Your task to perform on an android device: Open network settings Image 0: 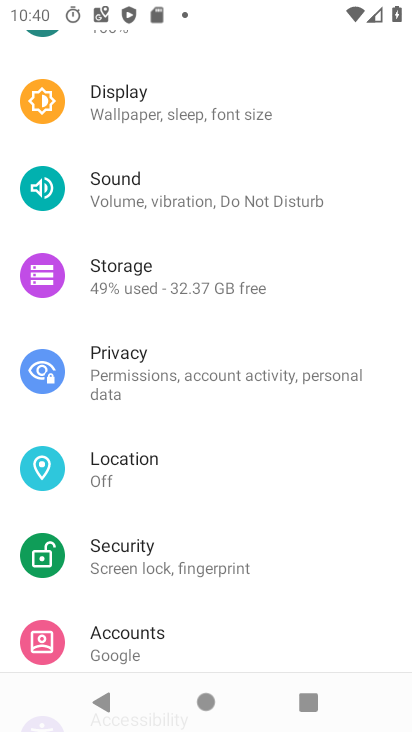
Step 0: press home button
Your task to perform on an android device: Open network settings Image 1: 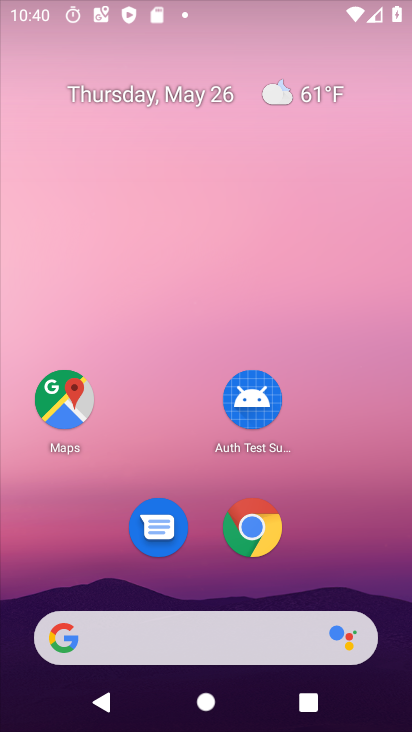
Step 1: drag from (311, 517) to (317, 59)
Your task to perform on an android device: Open network settings Image 2: 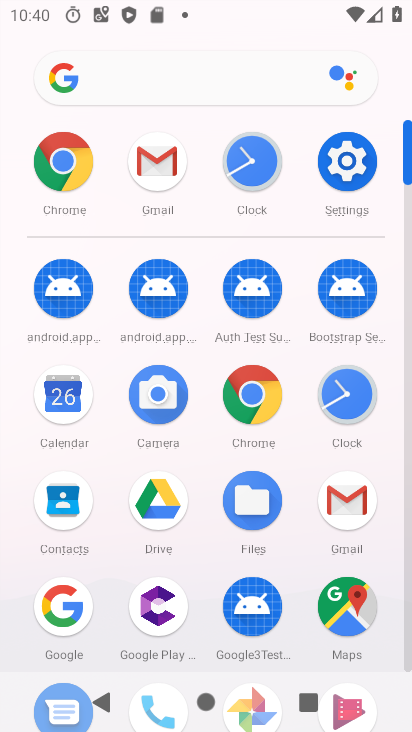
Step 2: click (81, 164)
Your task to perform on an android device: Open network settings Image 3: 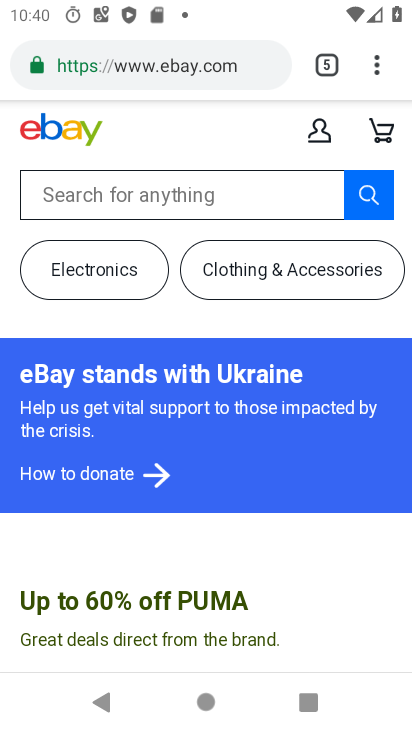
Step 3: press home button
Your task to perform on an android device: Open network settings Image 4: 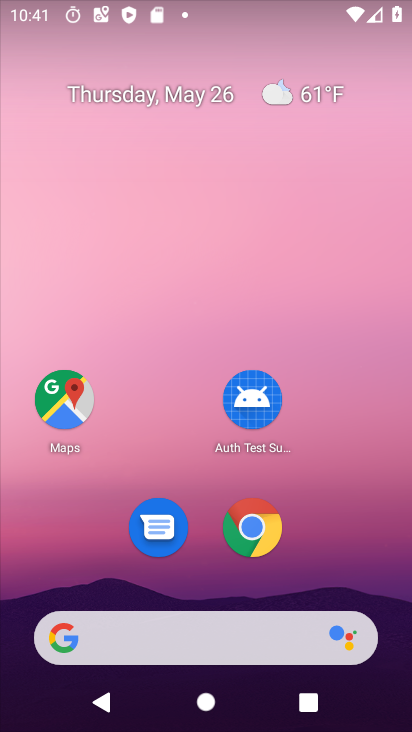
Step 4: drag from (336, 503) to (307, 10)
Your task to perform on an android device: Open network settings Image 5: 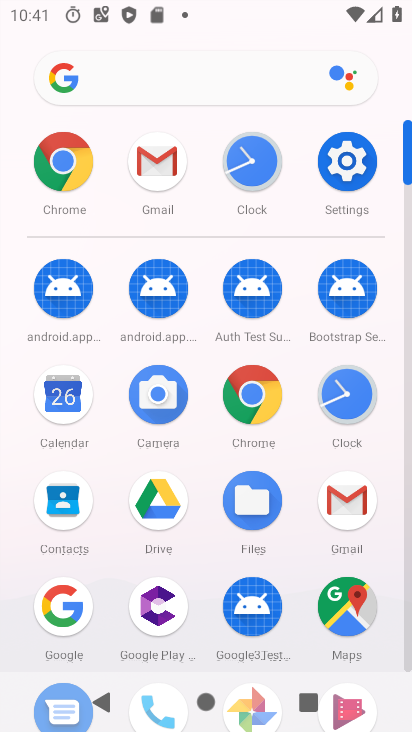
Step 5: click (350, 170)
Your task to perform on an android device: Open network settings Image 6: 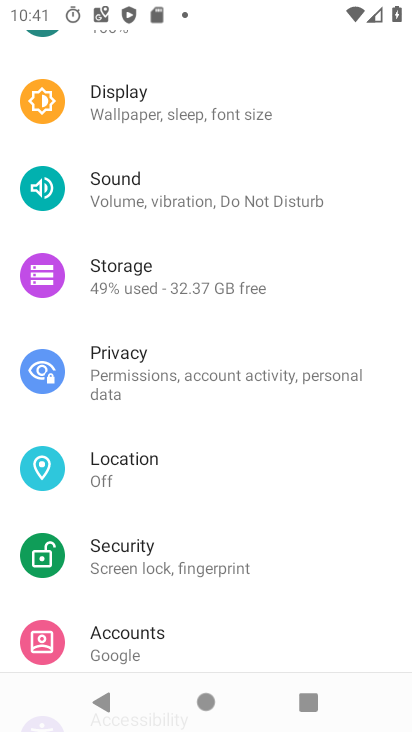
Step 6: drag from (204, 458) to (237, 659)
Your task to perform on an android device: Open network settings Image 7: 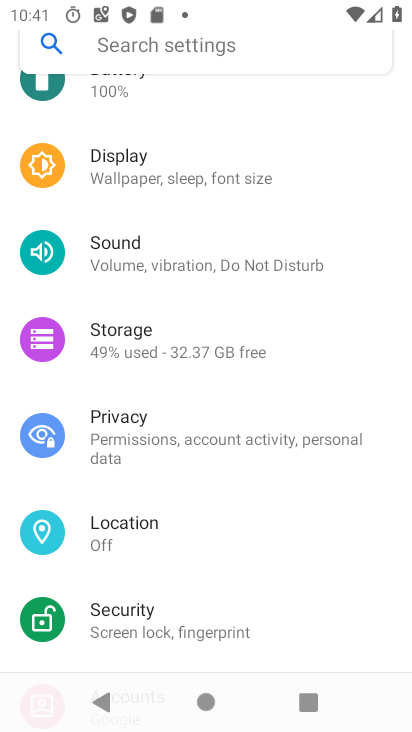
Step 7: drag from (134, 184) to (160, 629)
Your task to perform on an android device: Open network settings Image 8: 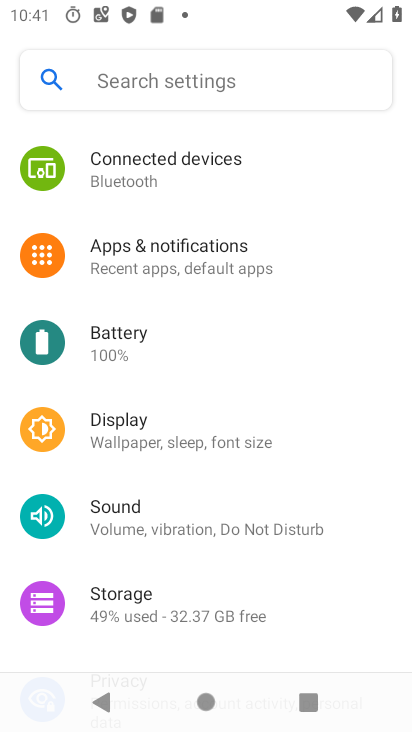
Step 8: drag from (254, 208) to (209, 710)
Your task to perform on an android device: Open network settings Image 9: 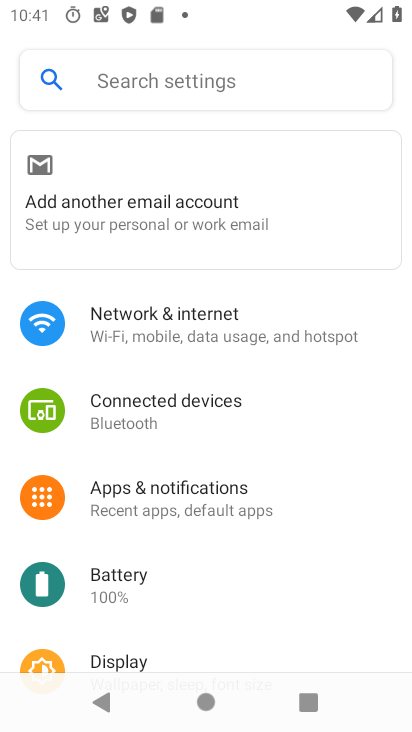
Step 9: click (116, 328)
Your task to perform on an android device: Open network settings Image 10: 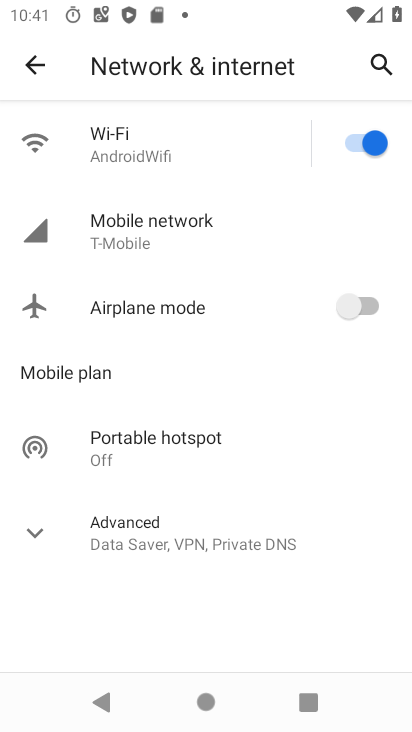
Step 10: task complete